Your task to perform on an android device: Open settings on Google Maps Image 0: 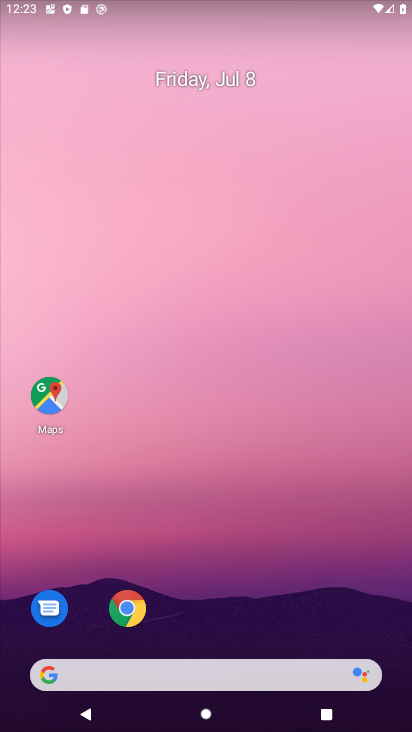
Step 0: click (35, 413)
Your task to perform on an android device: Open settings on Google Maps Image 1: 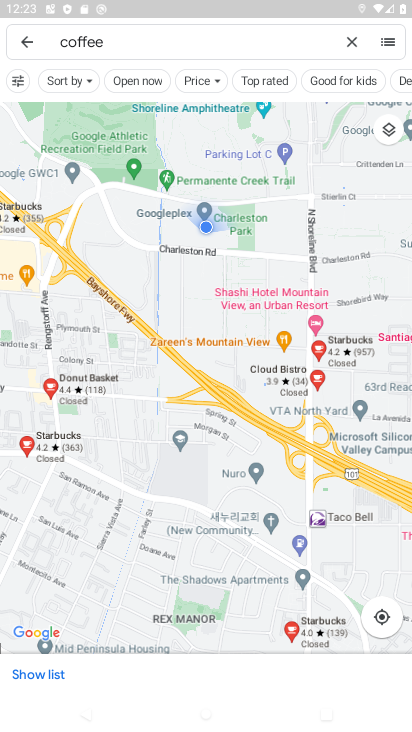
Step 1: click (29, 45)
Your task to perform on an android device: Open settings on Google Maps Image 2: 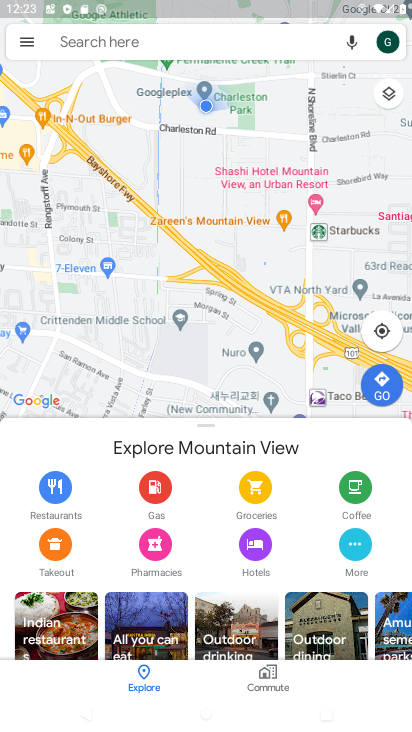
Step 2: click (29, 45)
Your task to perform on an android device: Open settings on Google Maps Image 3: 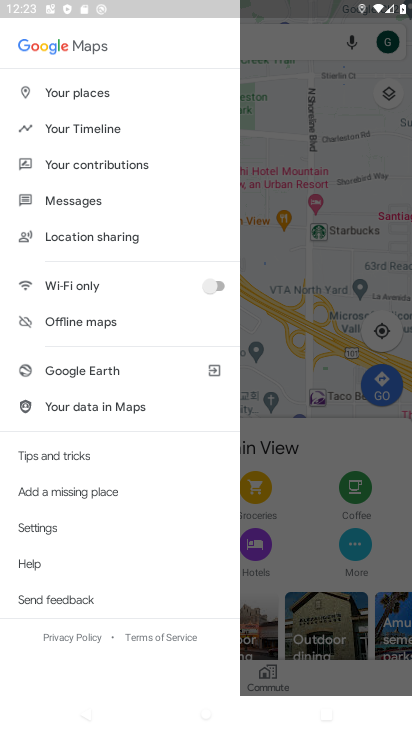
Step 3: click (102, 530)
Your task to perform on an android device: Open settings on Google Maps Image 4: 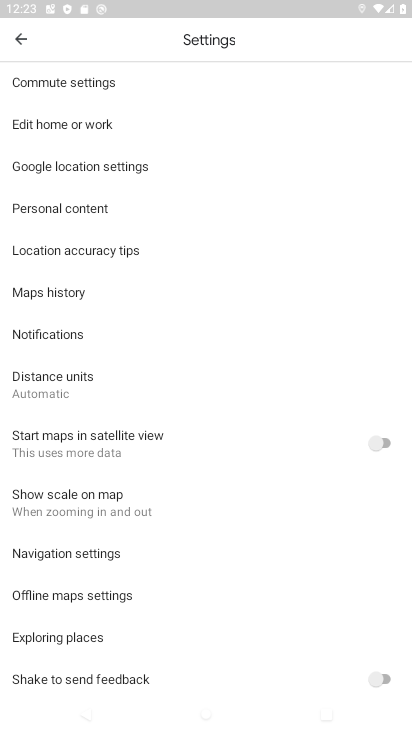
Step 4: task complete